Your task to perform on an android device: Open the Play Movies app and select the watchlist tab. Image 0: 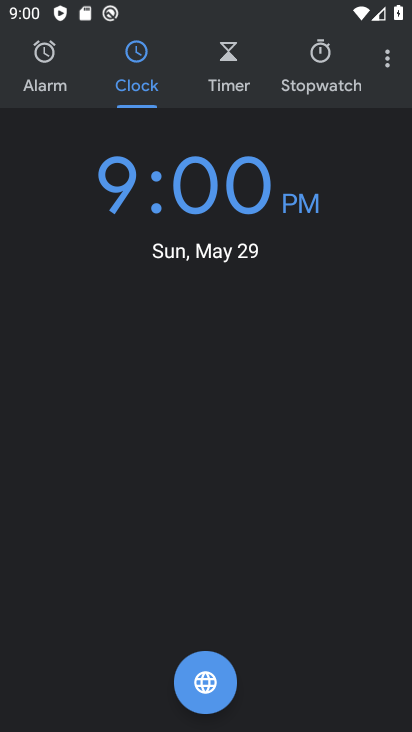
Step 0: press home button
Your task to perform on an android device: Open the Play Movies app and select the watchlist tab. Image 1: 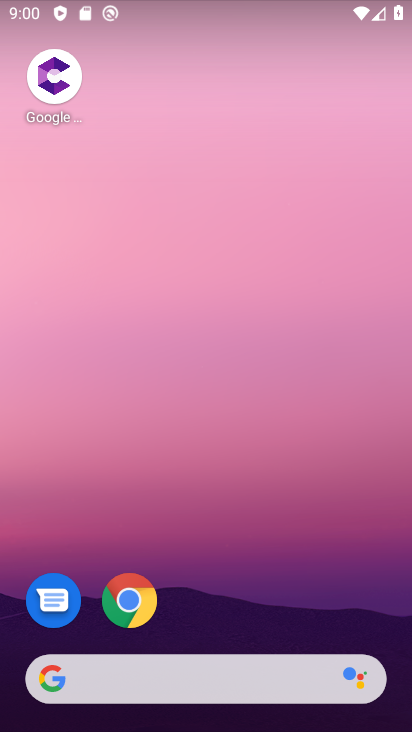
Step 1: drag from (204, 632) to (143, 110)
Your task to perform on an android device: Open the Play Movies app and select the watchlist tab. Image 2: 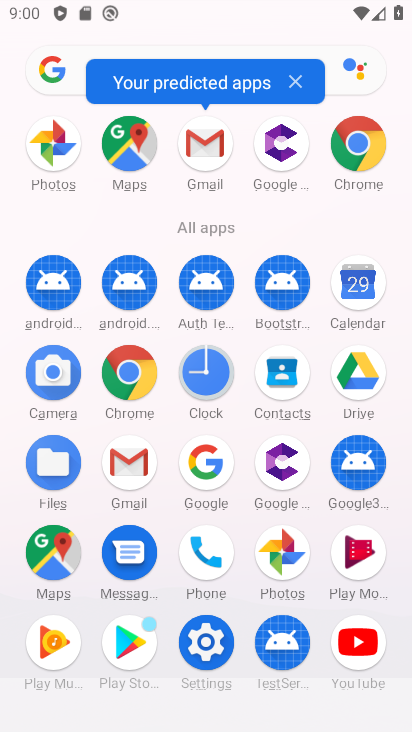
Step 2: click (351, 546)
Your task to perform on an android device: Open the Play Movies app and select the watchlist tab. Image 3: 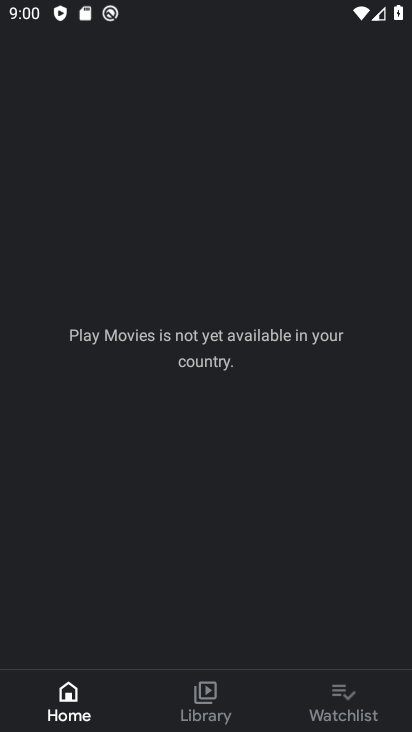
Step 3: click (344, 699)
Your task to perform on an android device: Open the Play Movies app and select the watchlist tab. Image 4: 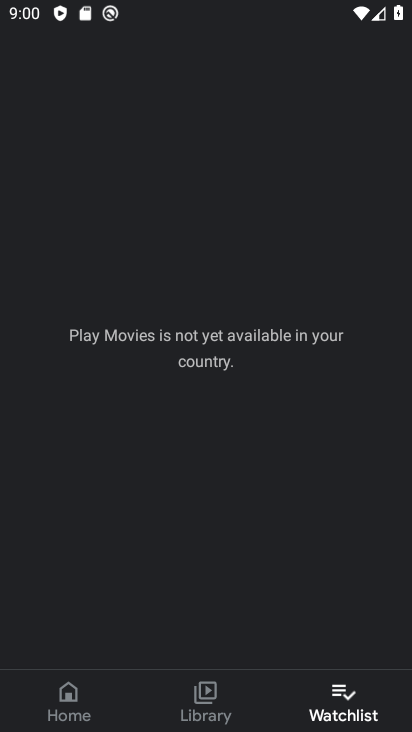
Step 4: task complete